Your task to perform on an android device: change the upload size in google photos Image 0: 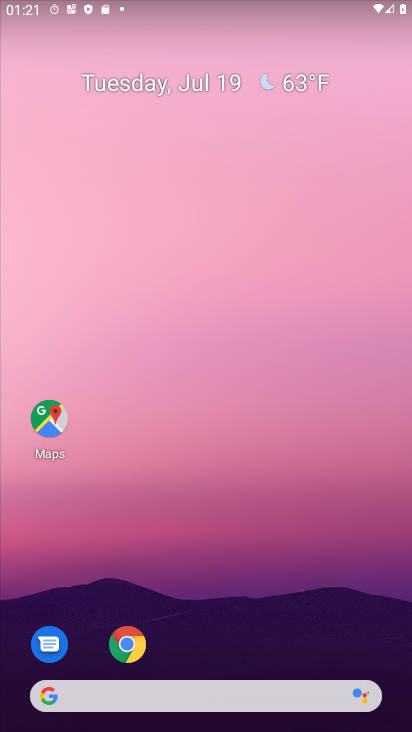
Step 0: drag from (206, 725) to (176, 187)
Your task to perform on an android device: change the upload size in google photos Image 1: 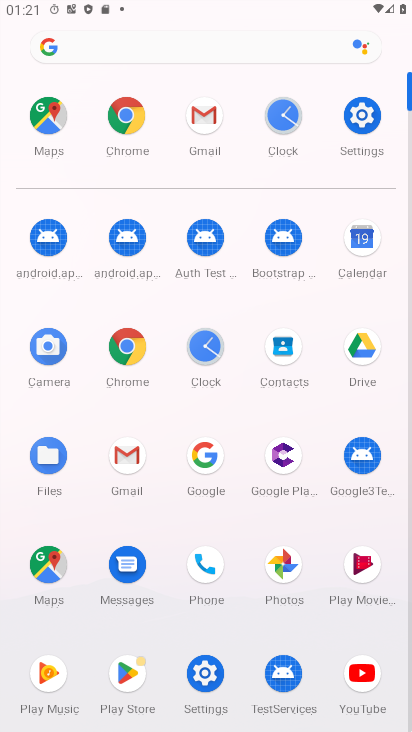
Step 1: click (280, 561)
Your task to perform on an android device: change the upload size in google photos Image 2: 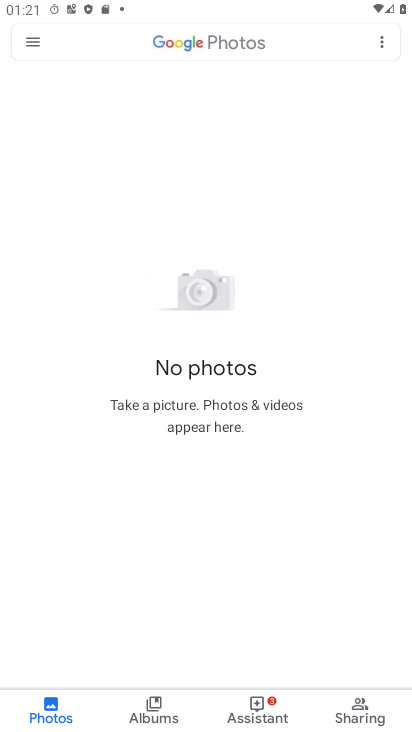
Step 2: click (33, 43)
Your task to perform on an android device: change the upload size in google photos Image 3: 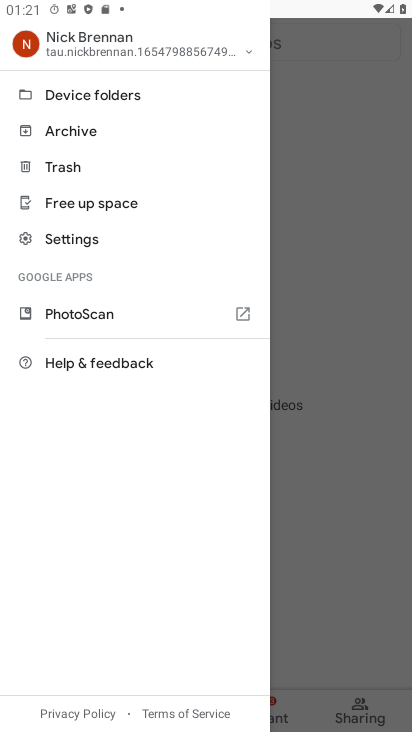
Step 3: click (73, 239)
Your task to perform on an android device: change the upload size in google photos Image 4: 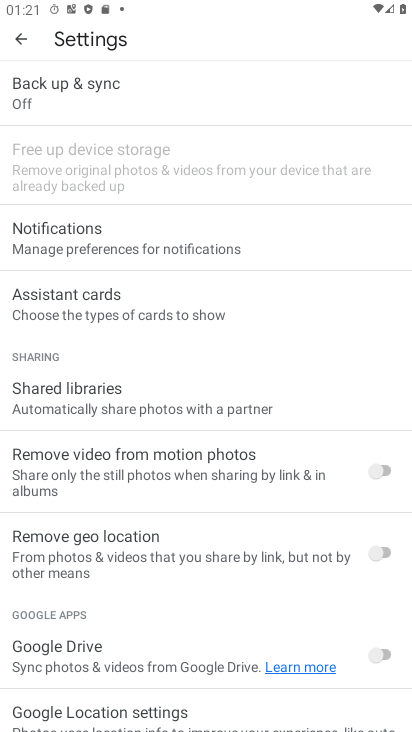
Step 4: click (50, 93)
Your task to perform on an android device: change the upload size in google photos Image 5: 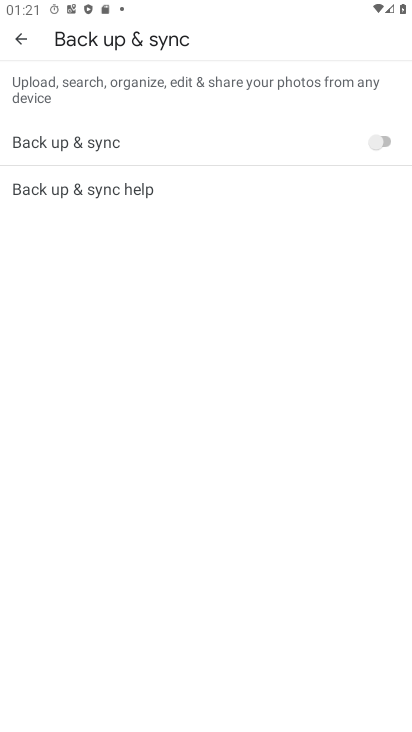
Step 5: click (379, 138)
Your task to perform on an android device: change the upload size in google photos Image 6: 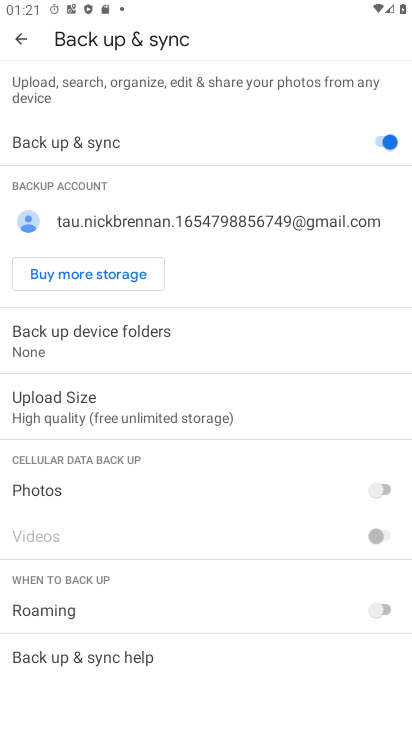
Step 6: click (69, 403)
Your task to perform on an android device: change the upload size in google photos Image 7: 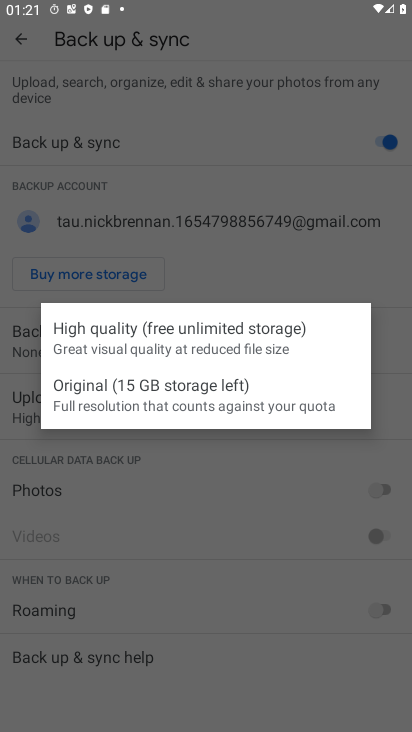
Step 7: click (161, 391)
Your task to perform on an android device: change the upload size in google photos Image 8: 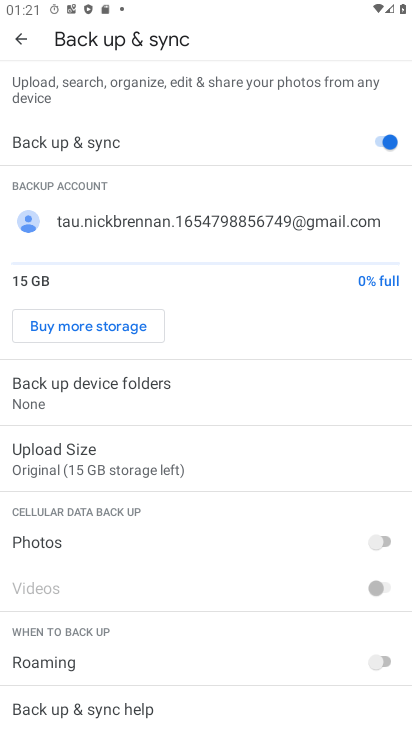
Step 8: task complete